Your task to perform on an android device: Open the map Image 0: 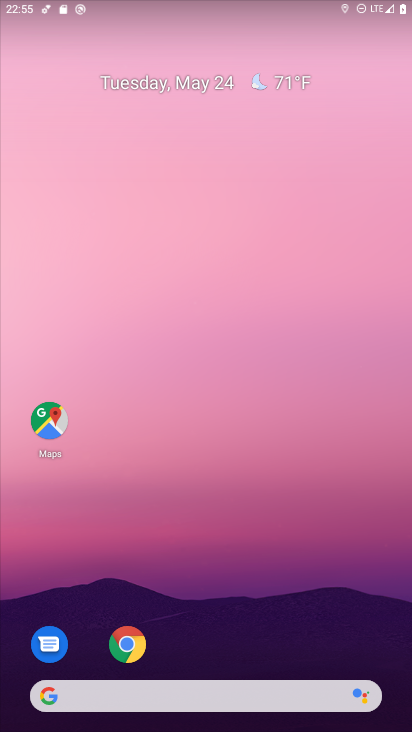
Step 0: click (49, 421)
Your task to perform on an android device: Open the map Image 1: 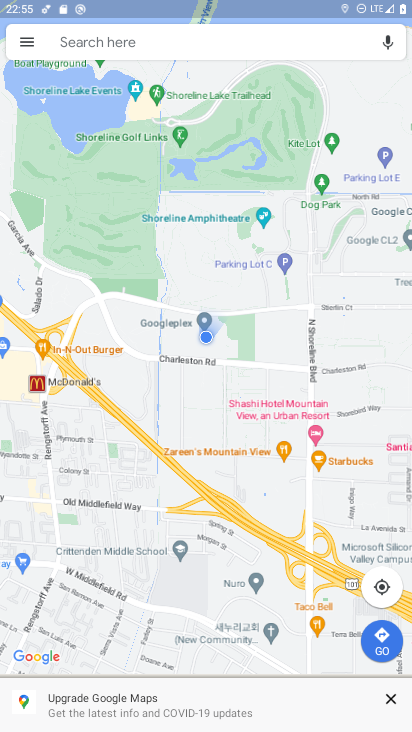
Step 1: task complete